Your task to perform on an android device: Open Wikipedia Image 0: 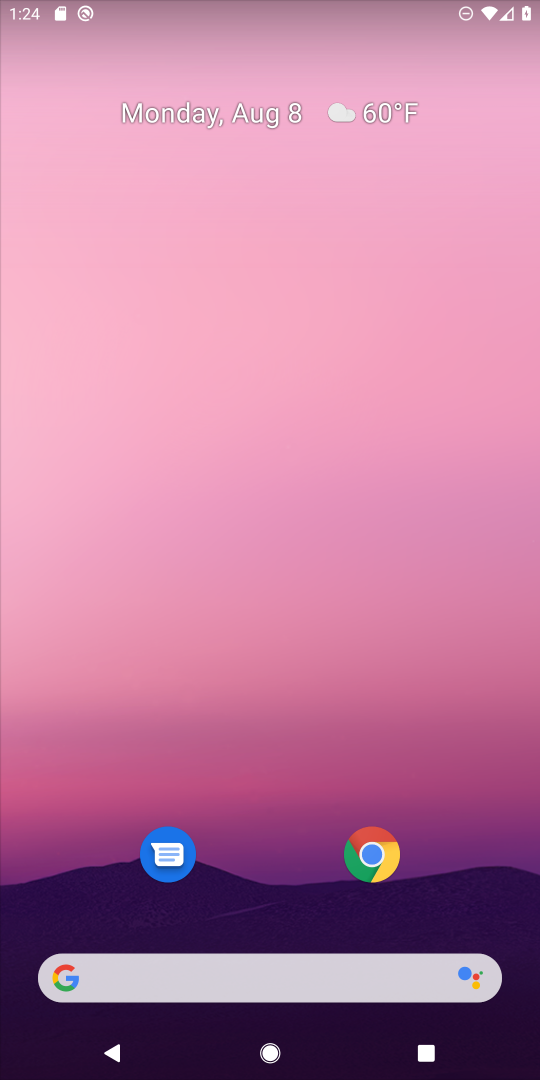
Step 0: press home button
Your task to perform on an android device: Open Wikipedia Image 1: 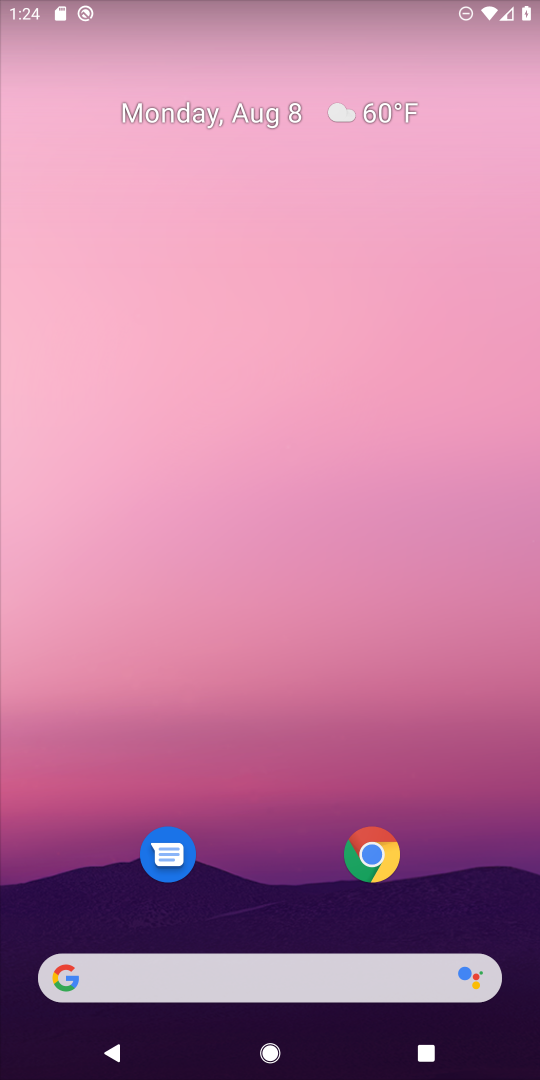
Step 1: click (56, 968)
Your task to perform on an android device: Open Wikipedia Image 2: 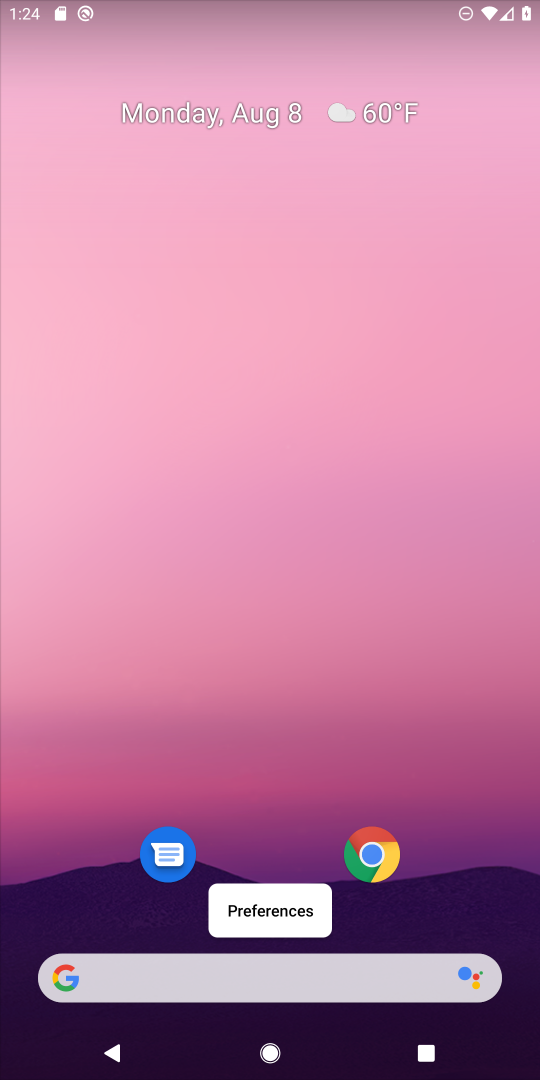
Step 2: click (60, 967)
Your task to perform on an android device: Open Wikipedia Image 3: 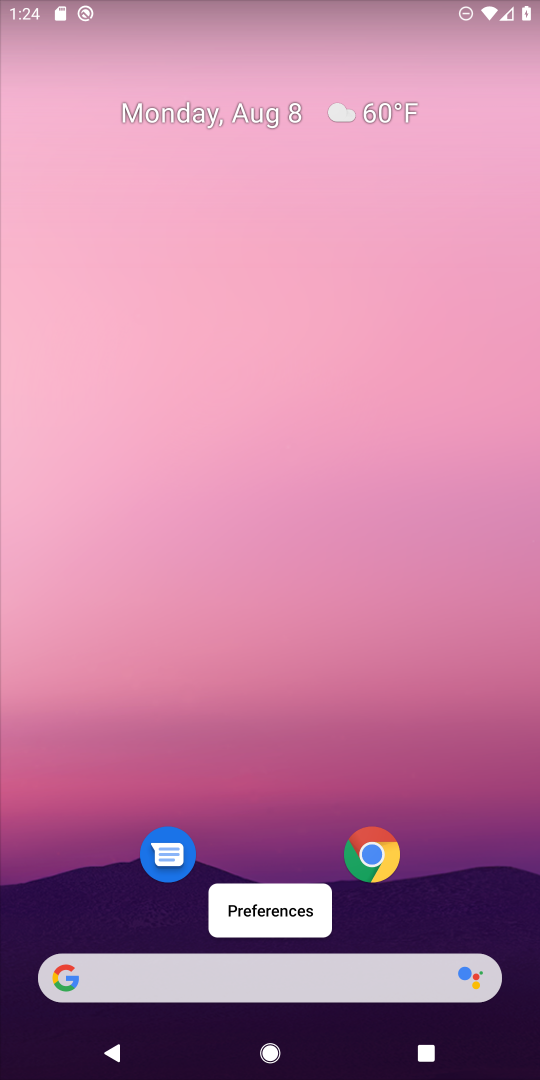
Step 3: click (65, 967)
Your task to perform on an android device: Open Wikipedia Image 4: 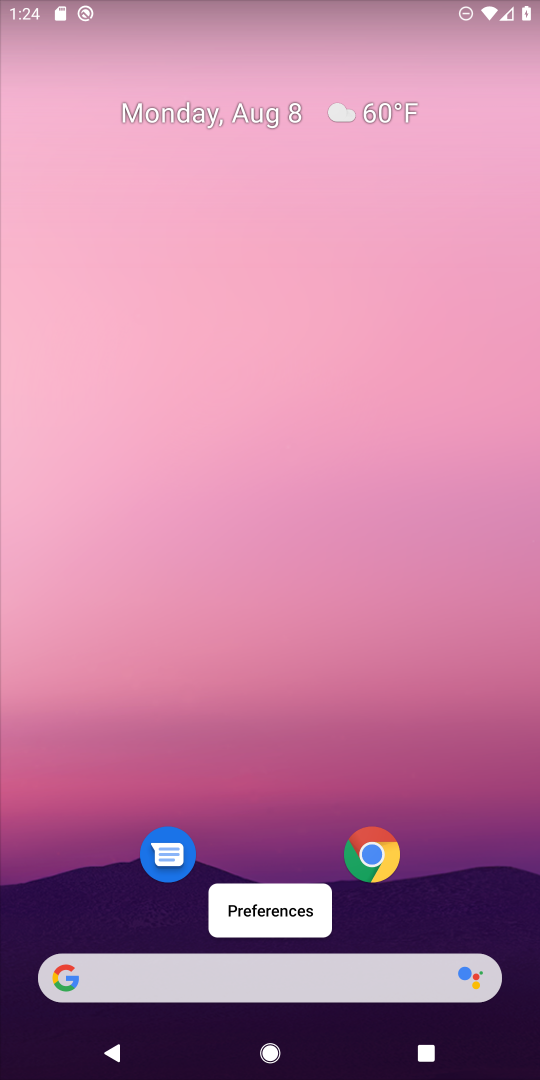
Step 4: click (66, 971)
Your task to perform on an android device: Open Wikipedia Image 5: 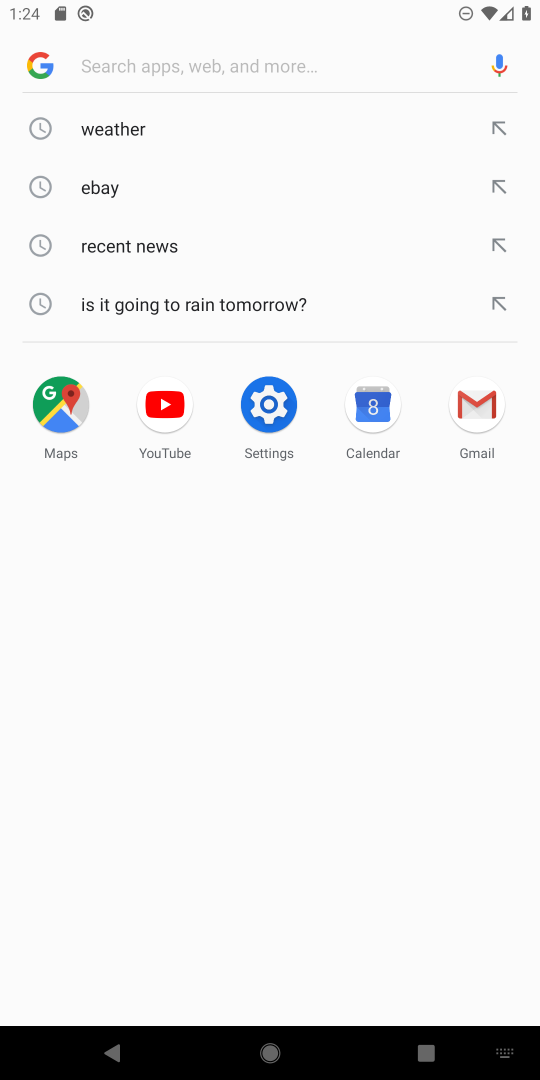
Step 5: type " Wikipedia"
Your task to perform on an android device: Open Wikipedia Image 6: 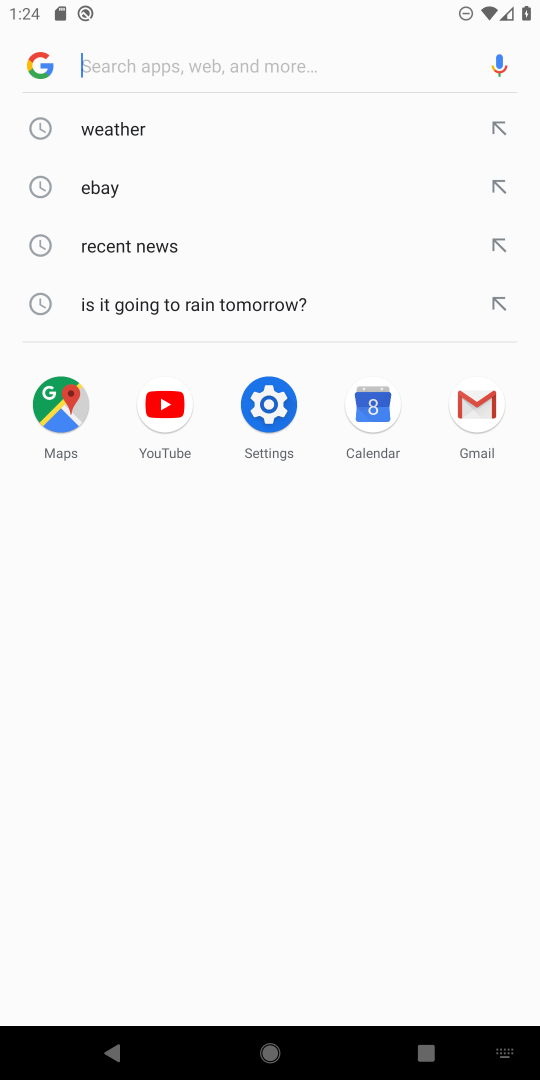
Step 6: click (146, 73)
Your task to perform on an android device: Open Wikipedia Image 7: 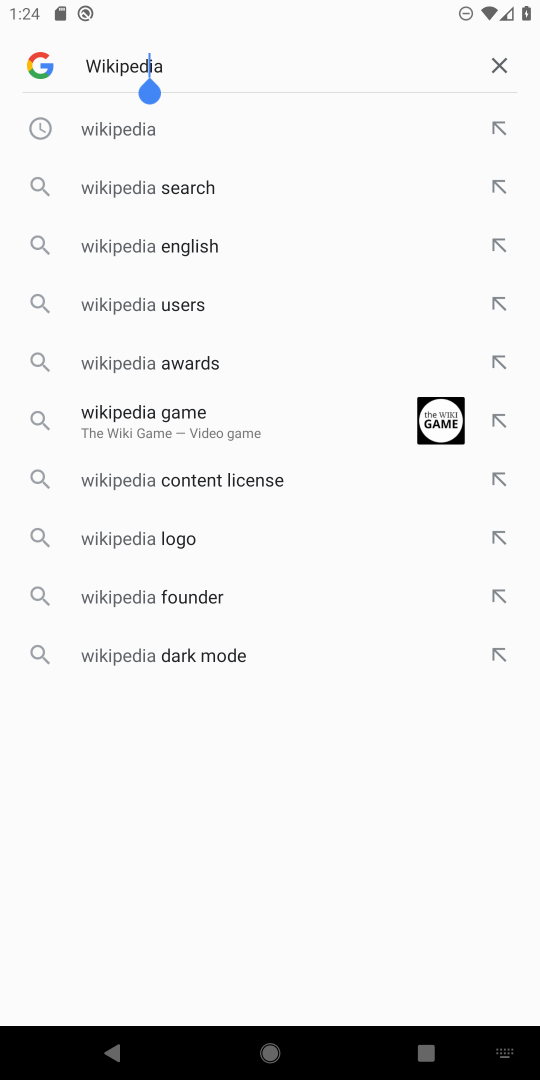
Step 7: click (138, 136)
Your task to perform on an android device: Open Wikipedia Image 8: 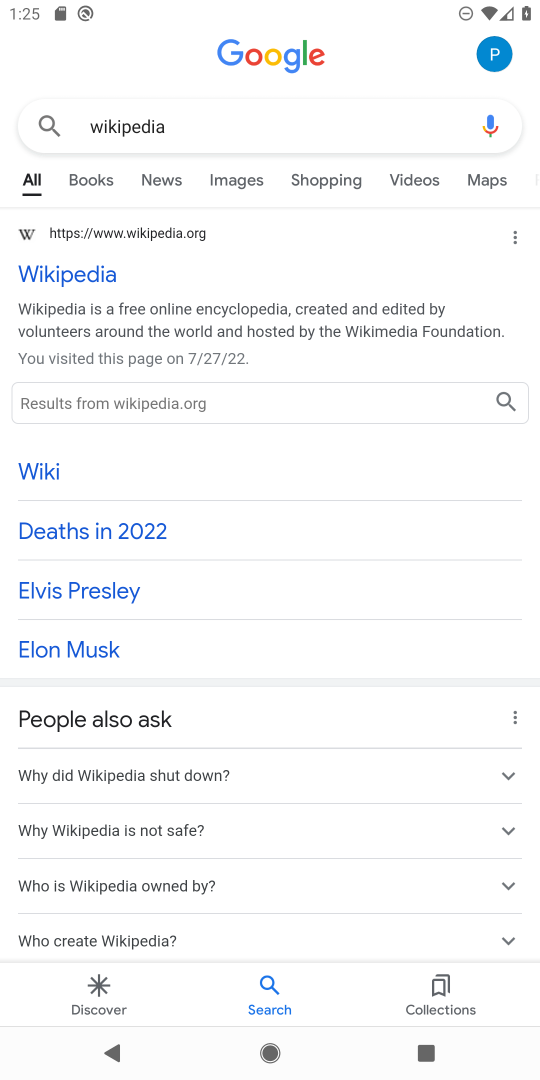
Step 8: click (55, 277)
Your task to perform on an android device: Open Wikipedia Image 9: 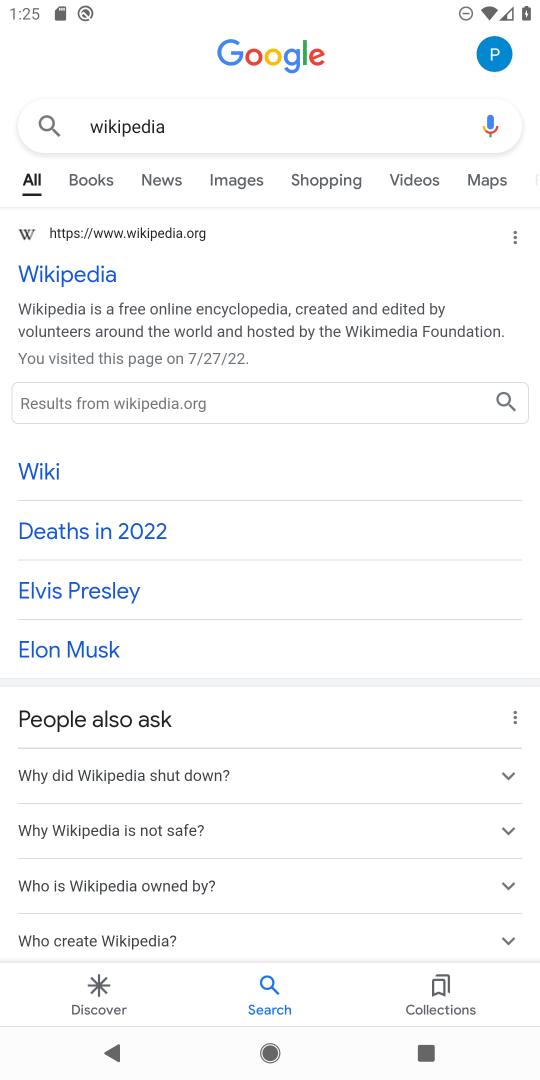
Step 9: click (62, 268)
Your task to perform on an android device: Open Wikipedia Image 10: 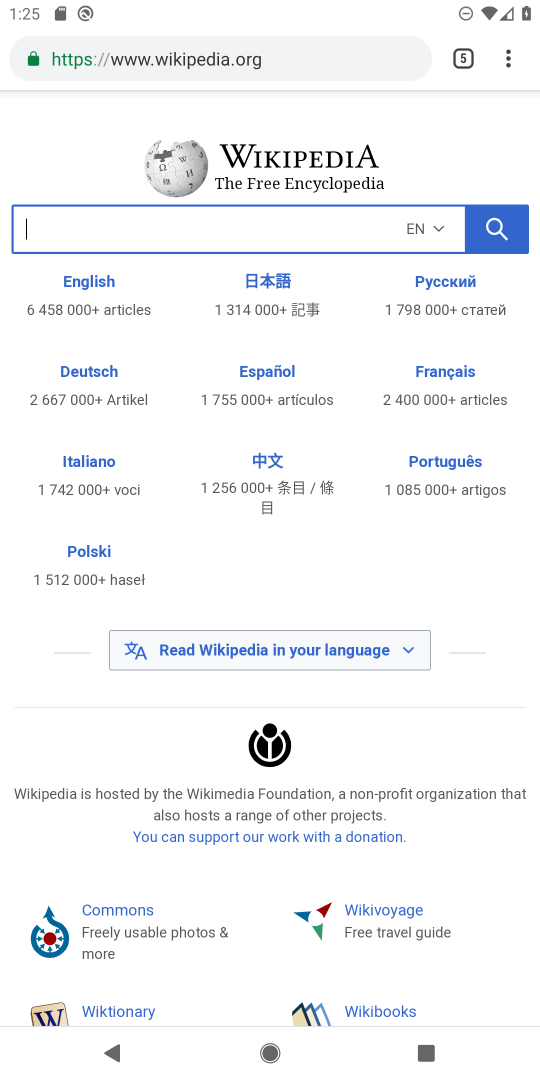
Step 10: task complete